Your task to perform on an android device: Go to internet settings Image 0: 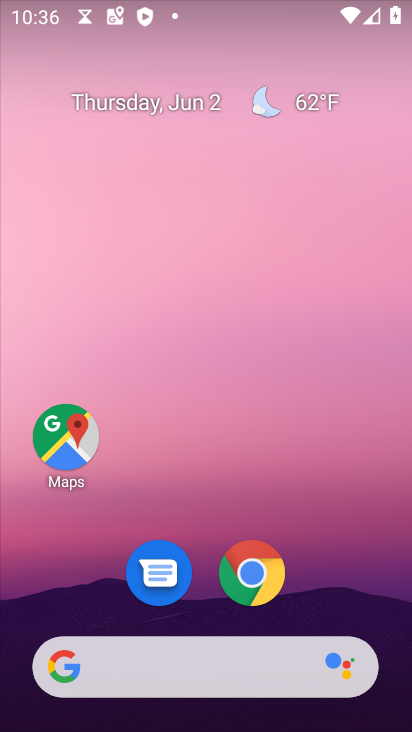
Step 0: drag from (332, 564) to (251, 123)
Your task to perform on an android device: Go to internet settings Image 1: 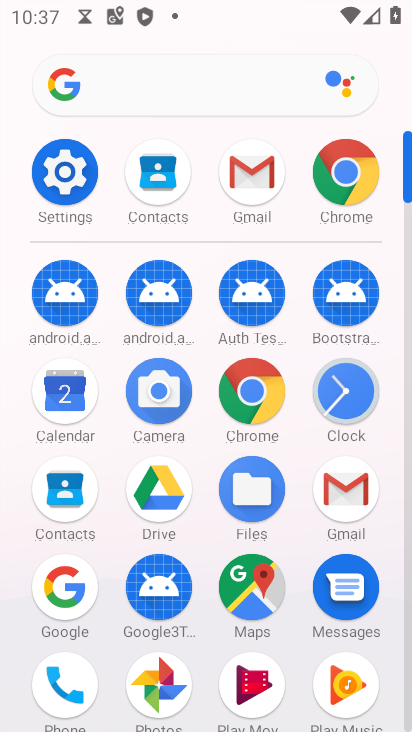
Step 1: click (66, 173)
Your task to perform on an android device: Go to internet settings Image 2: 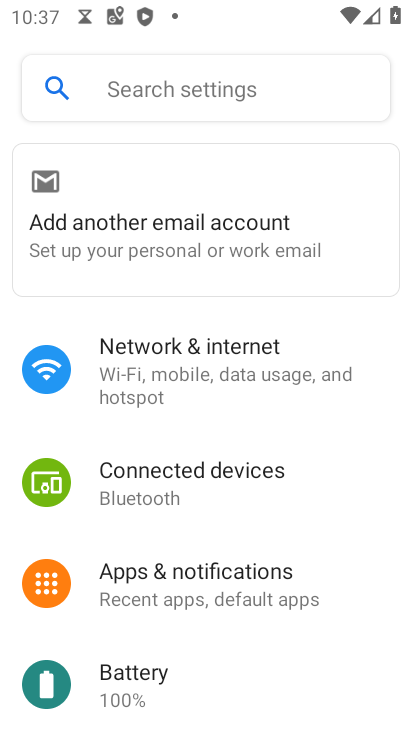
Step 2: click (184, 358)
Your task to perform on an android device: Go to internet settings Image 3: 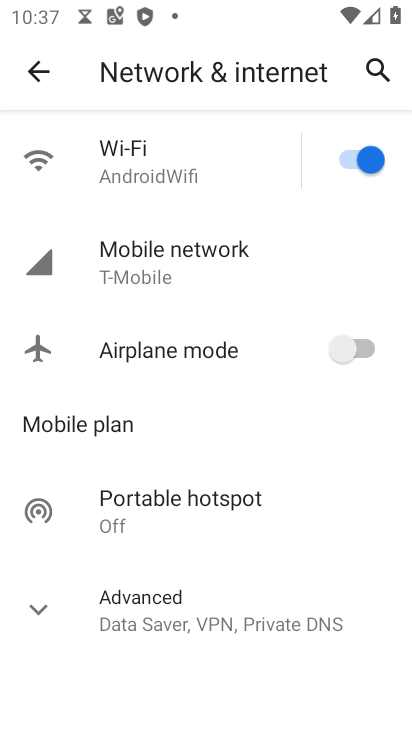
Step 3: click (138, 181)
Your task to perform on an android device: Go to internet settings Image 4: 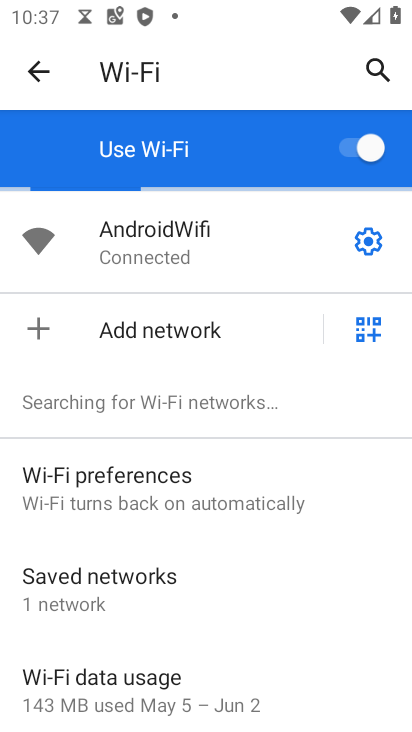
Step 4: task complete